Your task to perform on an android device: check out phone information Image 0: 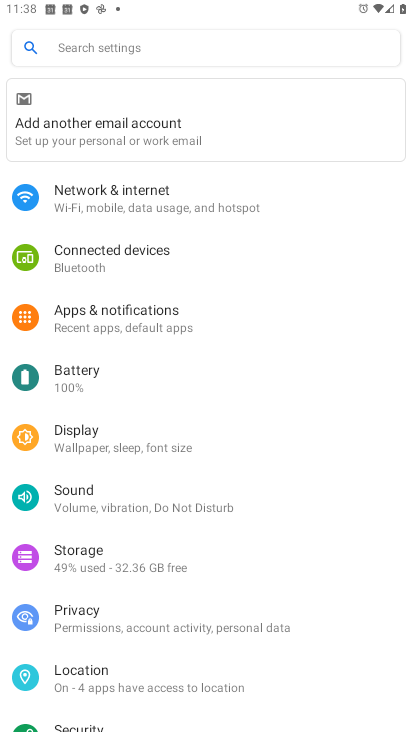
Step 0: click (272, 180)
Your task to perform on an android device: check out phone information Image 1: 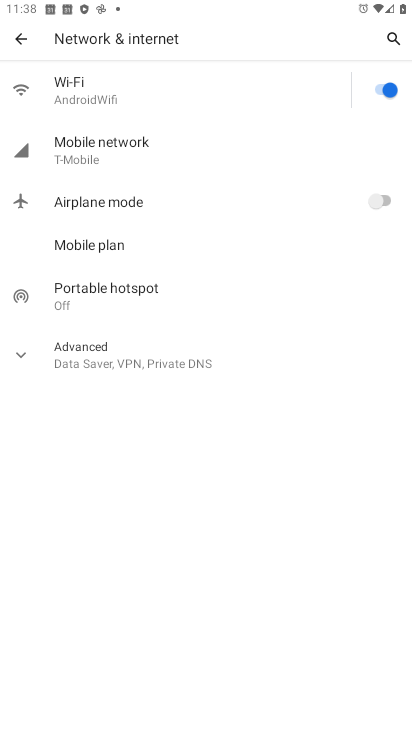
Step 1: click (31, 45)
Your task to perform on an android device: check out phone information Image 2: 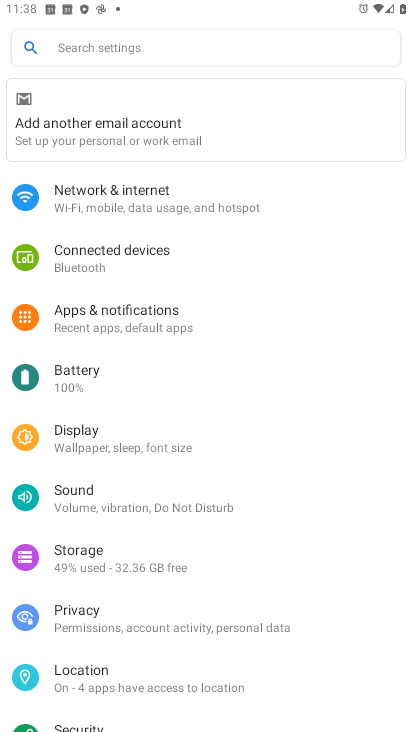
Step 2: drag from (186, 715) to (188, 67)
Your task to perform on an android device: check out phone information Image 3: 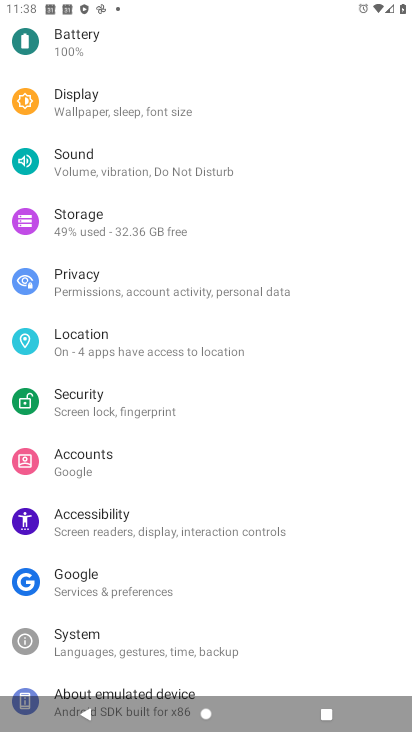
Step 3: drag from (119, 675) to (233, 167)
Your task to perform on an android device: check out phone information Image 4: 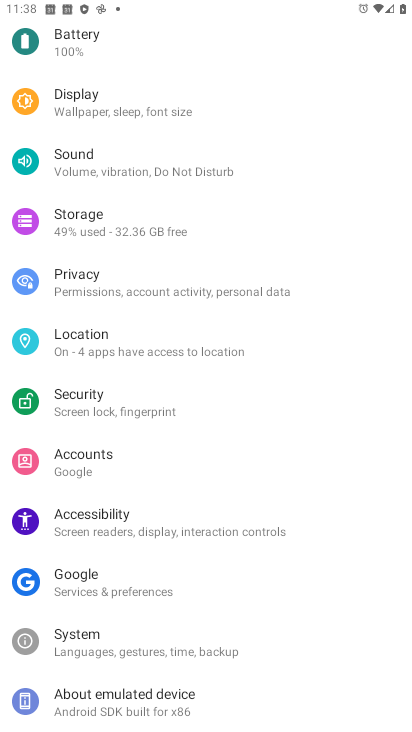
Step 4: click (176, 692)
Your task to perform on an android device: check out phone information Image 5: 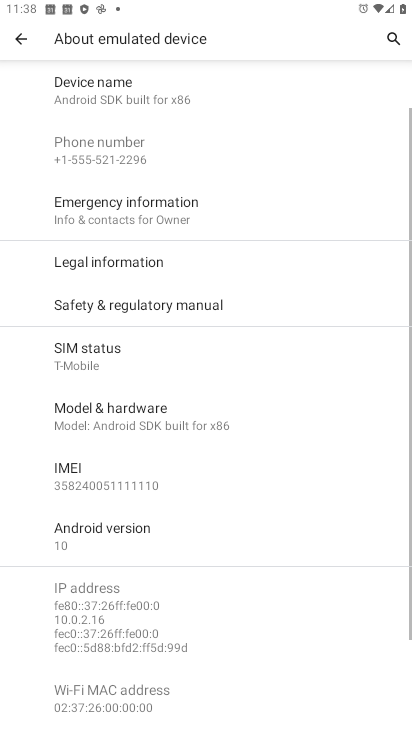
Step 5: task complete